Your task to perform on an android device: clear all cookies in the chrome app Image 0: 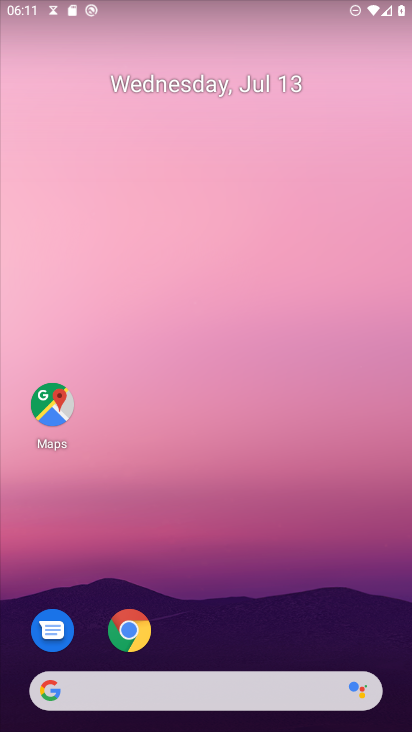
Step 0: drag from (222, 694) to (152, 2)
Your task to perform on an android device: clear all cookies in the chrome app Image 1: 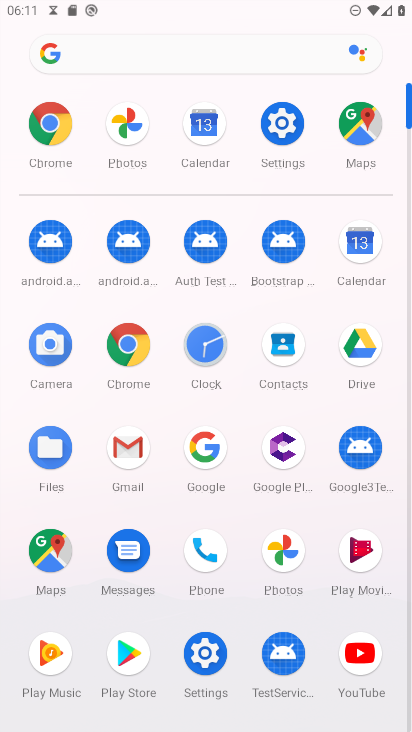
Step 1: click (121, 337)
Your task to perform on an android device: clear all cookies in the chrome app Image 2: 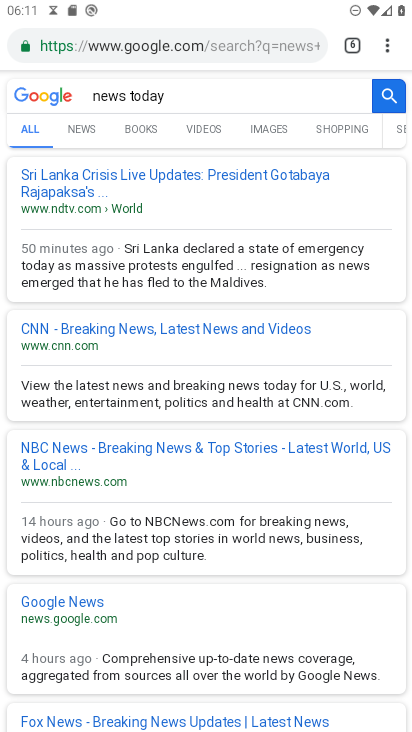
Step 2: drag from (377, 49) to (247, 261)
Your task to perform on an android device: clear all cookies in the chrome app Image 3: 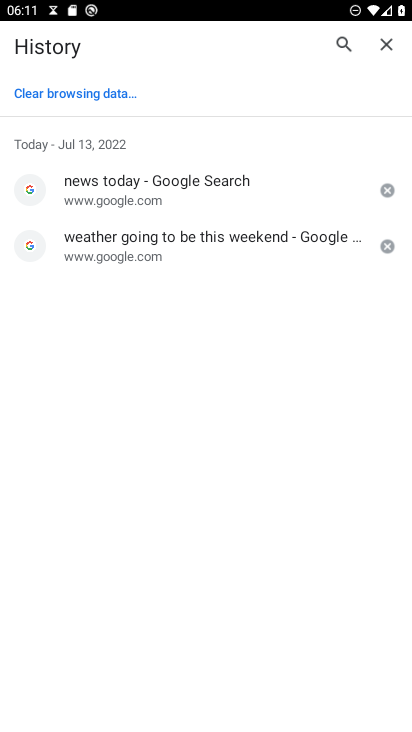
Step 3: click (105, 90)
Your task to perform on an android device: clear all cookies in the chrome app Image 4: 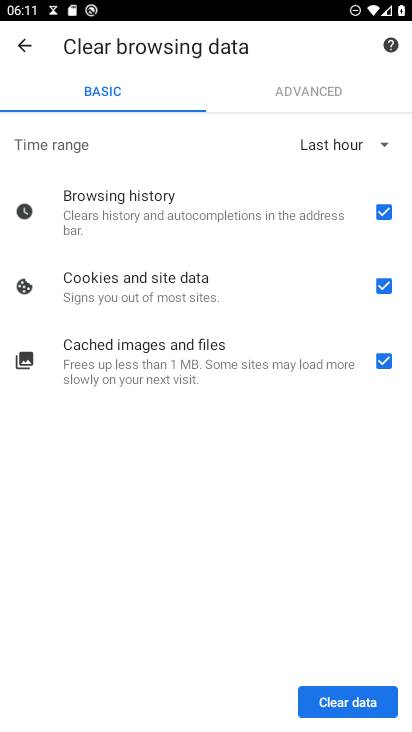
Step 4: click (345, 693)
Your task to perform on an android device: clear all cookies in the chrome app Image 5: 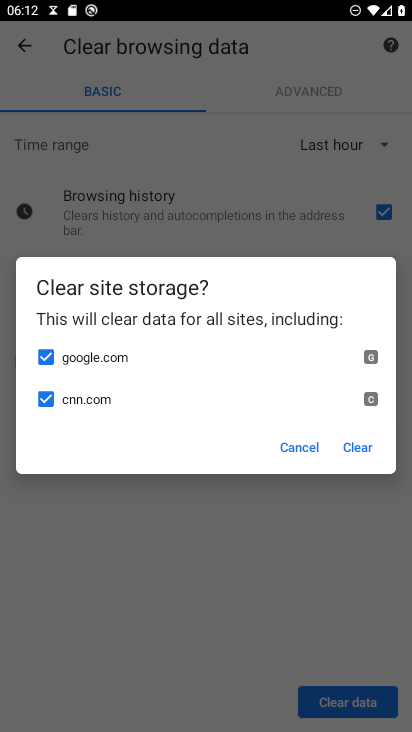
Step 5: click (354, 441)
Your task to perform on an android device: clear all cookies in the chrome app Image 6: 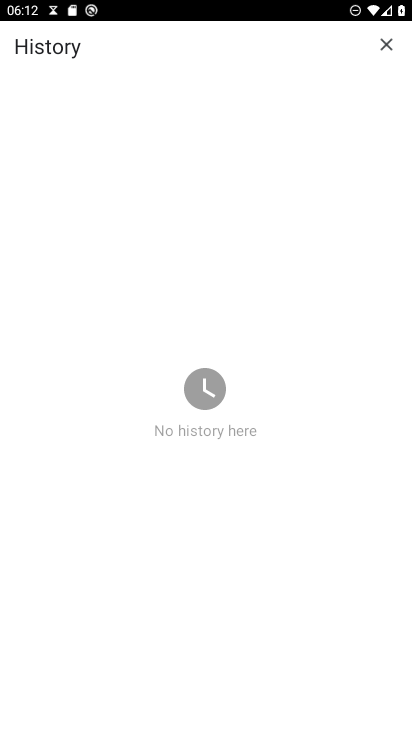
Step 6: press home button
Your task to perform on an android device: clear all cookies in the chrome app Image 7: 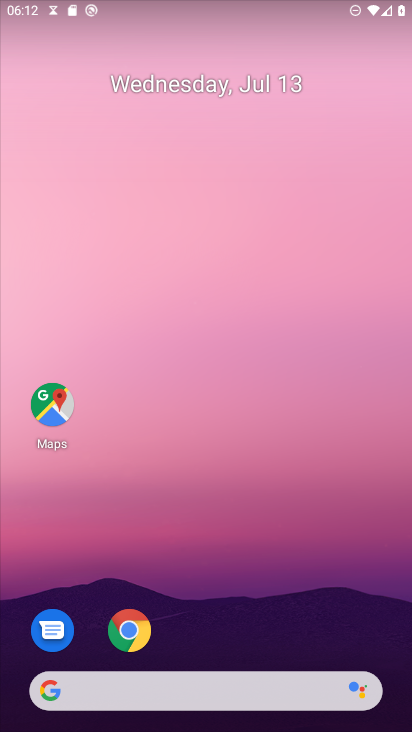
Step 7: drag from (203, 703) to (353, 1)
Your task to perform on an android device: clear all cookies in the chrome app Image 8: 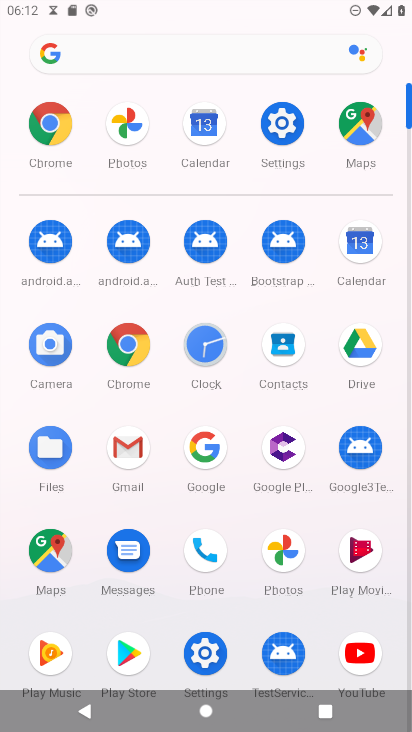
Step 8: click (131, 344)
Your task to perform on an android device: clear all cookies in the chrome app Image 9: 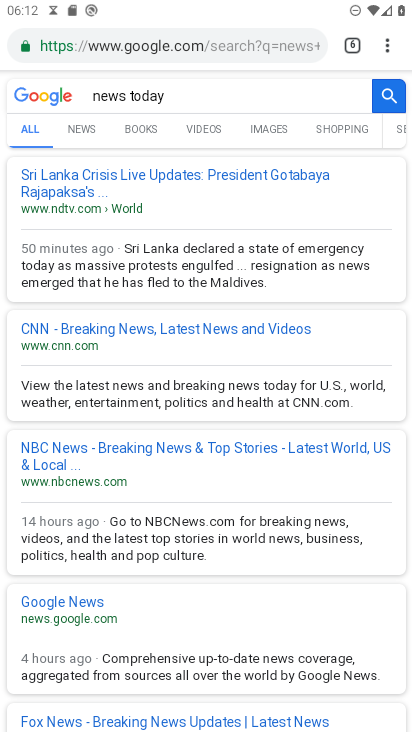
Step 9: task complete